Your task to perform on an android device: move an email to a new category in the gmail app Image 0: 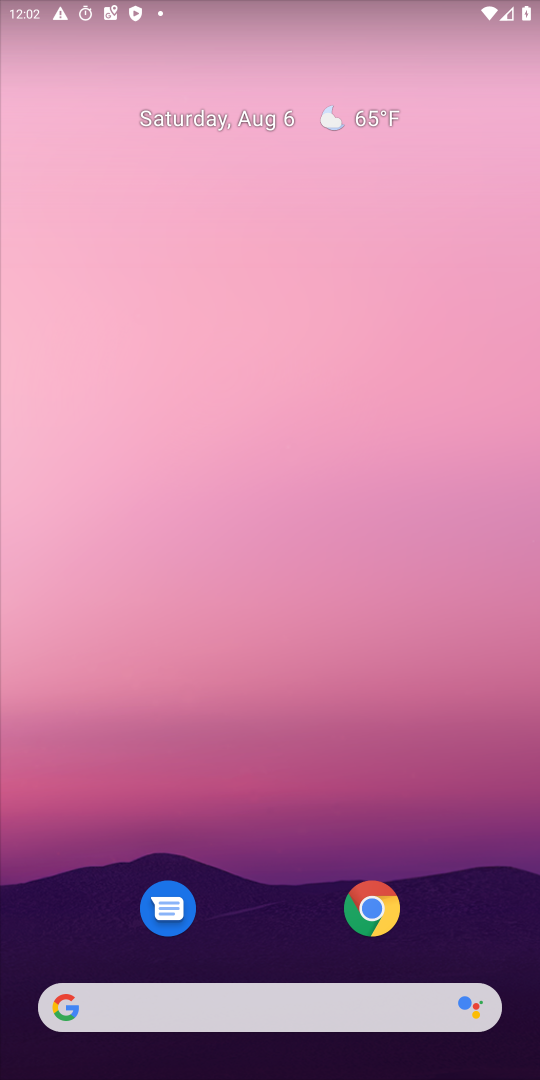
Step 0: drag from (47, 915) to (478, 171)
Your task to perform on an android device: move an email to a new category in the gmail app Image 1: 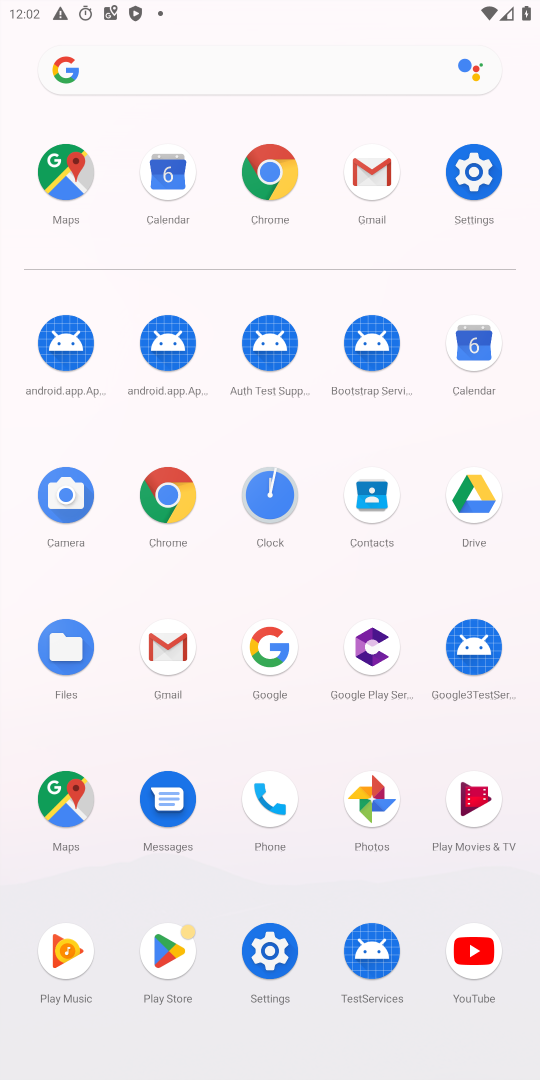
Step 1: click (167, 670)
Your task to perform on an android device: move an email to a new category in the gmail app Image 2: 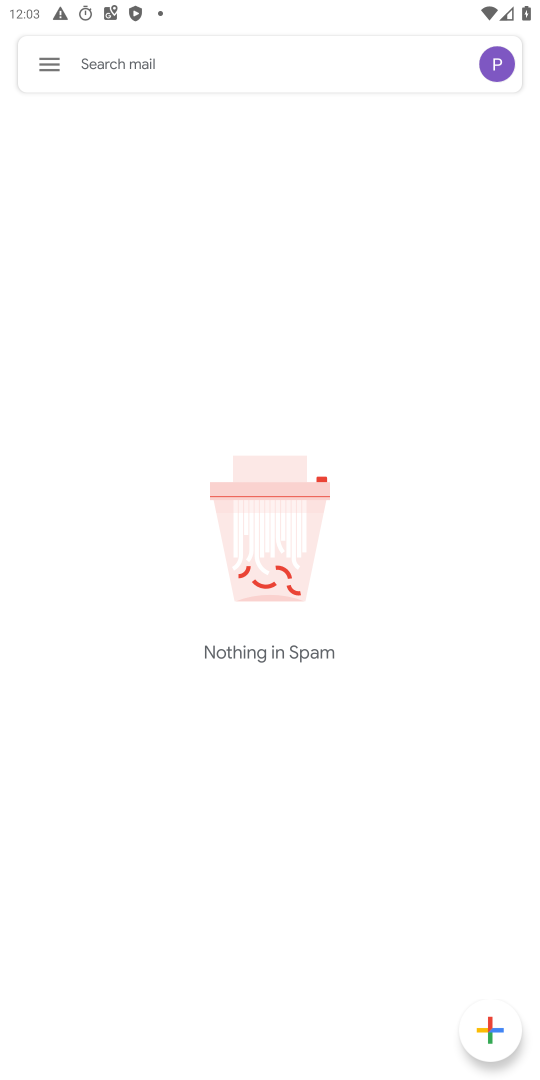
Step 2: task complete